Your task to perform on an android device: change your default location settings in chrome Image 0: 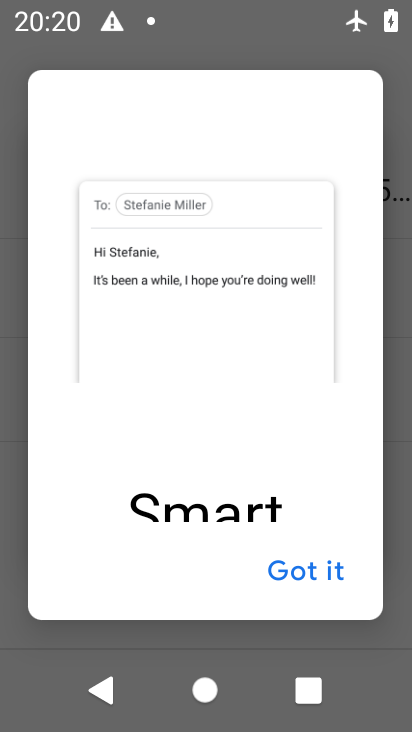
Step 0: press home button
Your task to perform on an android device: change your default location settings in chrome Image 1: 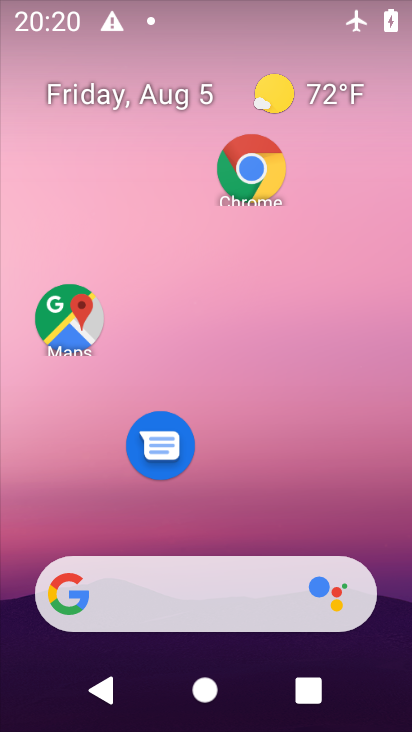
Step 1: click (250, 172)
Your task to perform on an android device: change your default location settings in chrome Image 2: 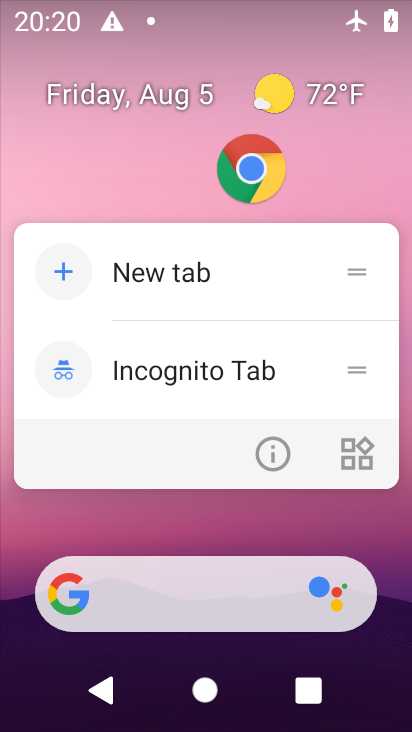
Step 2: click (250, 172)
Your task to perform on an android device: change your default location settings in chrome Image 3: 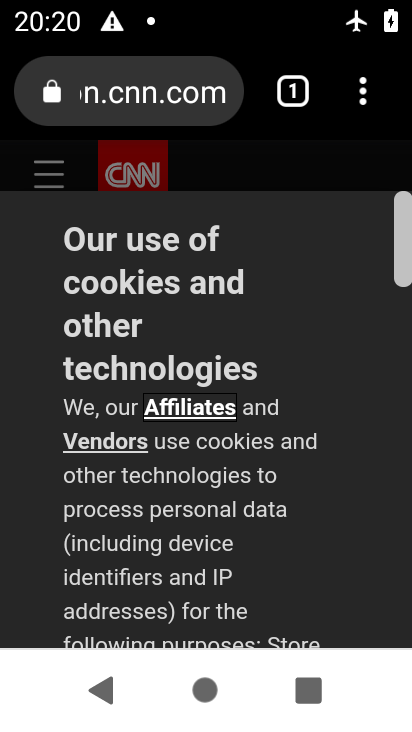
Step 3: click (362, 80)
Your task to perform on an android device: change your default location settings in chrome Image 4: 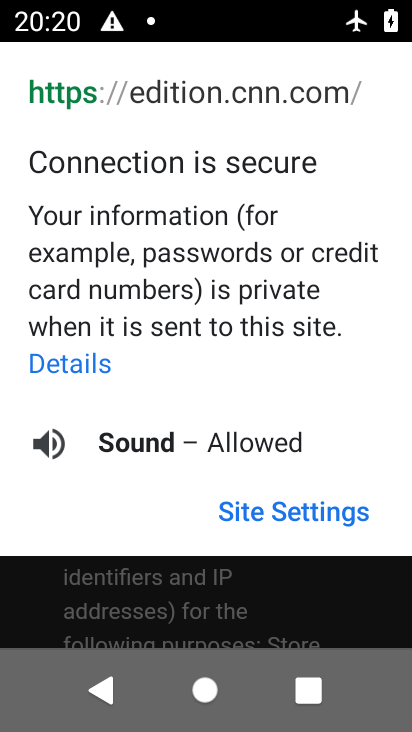
Step 4: click (252, 575)
Your task to perform on an android device: change your default location settings in chrome Image 5: 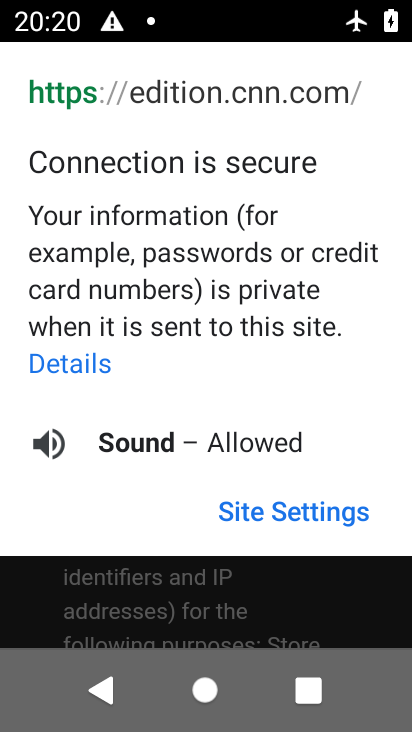
Step 5: click (276, 507)
Your task to perform on an android device: change your default location settings in chrome Image 6: 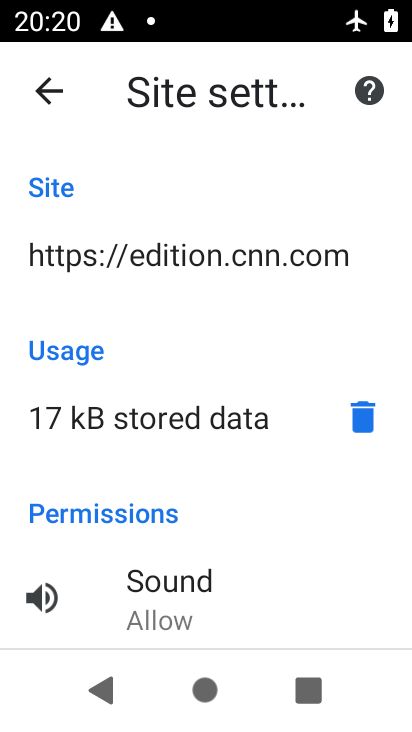
Step 6: click (54, 84)
Your task to perform on an android device: change your default location settings in chrome Image 7: 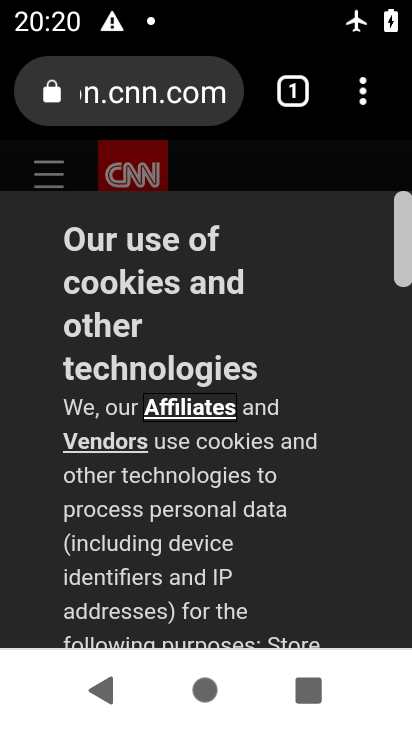
Step 7: drag from (351, 90) to (132, 470)
Your task to perform on an android device: change your default location settings in chrome Image 8: 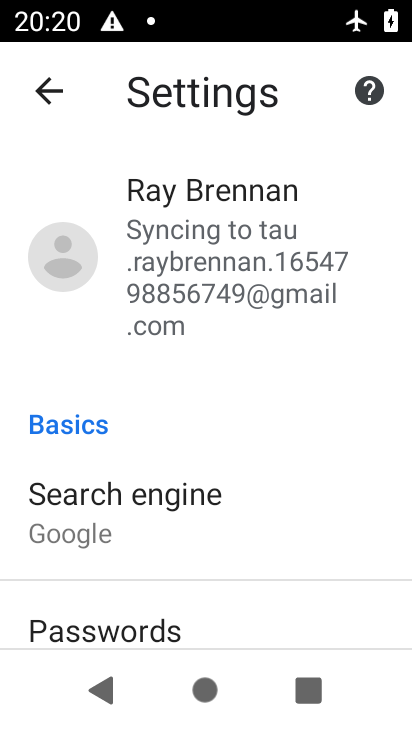
Step 8: drag from (212, 587) to (255, 148)
Your task to perform on an android device: change your default location settings in chrome Image 9: 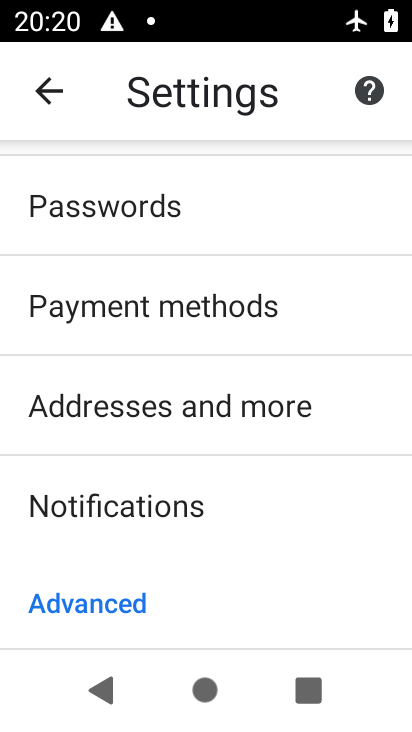
Step 9: drag from (204, 507) to (233, 202)
Your task to perform on an android device: change your default location settings in chrome Image 10: 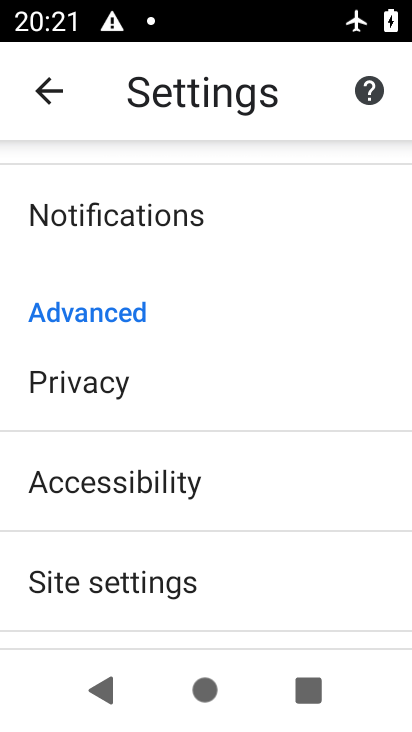
Step 10: click (219, 567)
Your task to perform on an android device: change your default location settings in chrome Image 11: 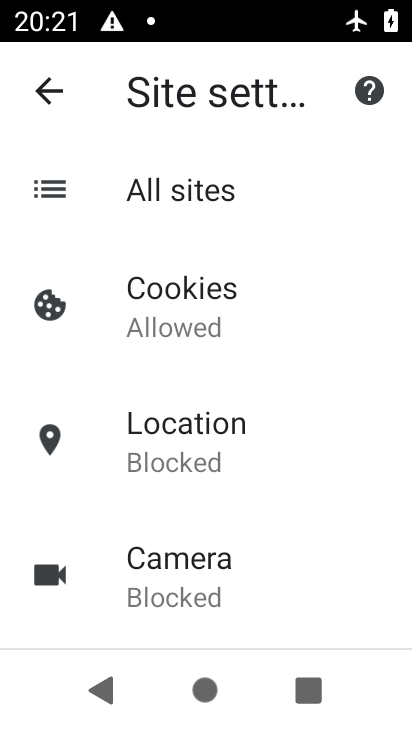
Step 11: click (217, 427)
Your task to perform on an android device: change your default location settings in chrome Image 12: 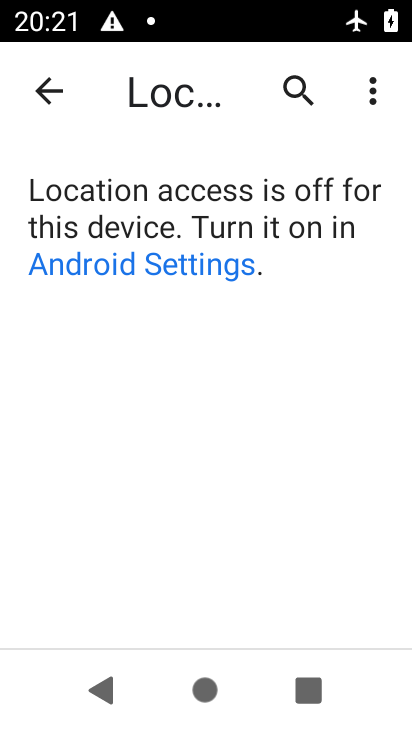
Step 12: task complete